Your task to perform on an android device: turn off smart reply in the gmail app Image 0: 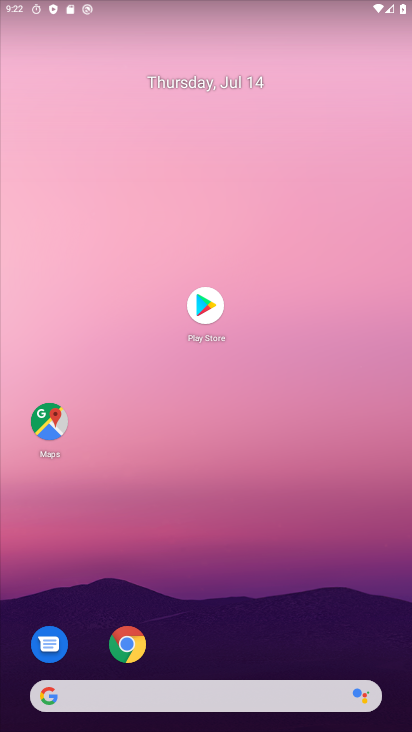
Step 0: drag from (226, 637) to (311, 173)
Your task to perform on an android device: turn off smart reply in the gmail app Image 1: 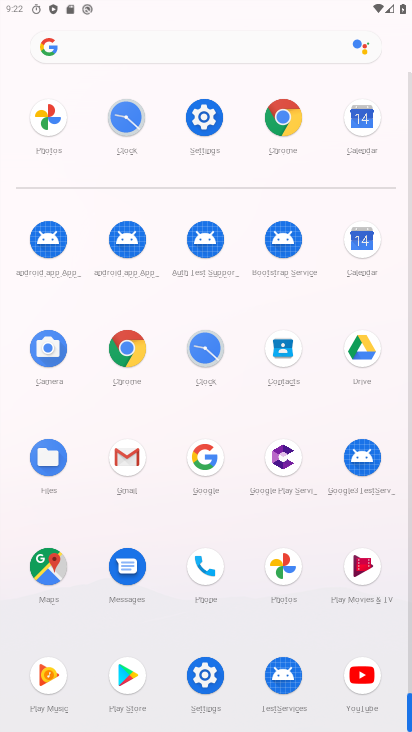
Step 1: click (141, 443)
Your task to perform on an android device: turn off smart reply in the gmail app Image 2: 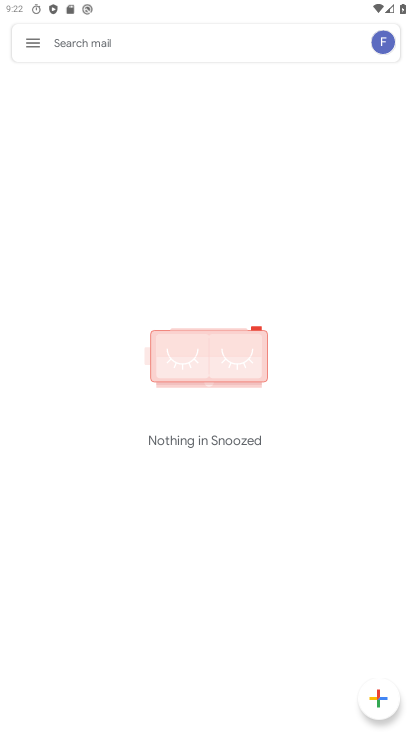
Step 2: click (33, 45)
Your task to perform on an android device: turn off smart reply in the gmail app Image 3: 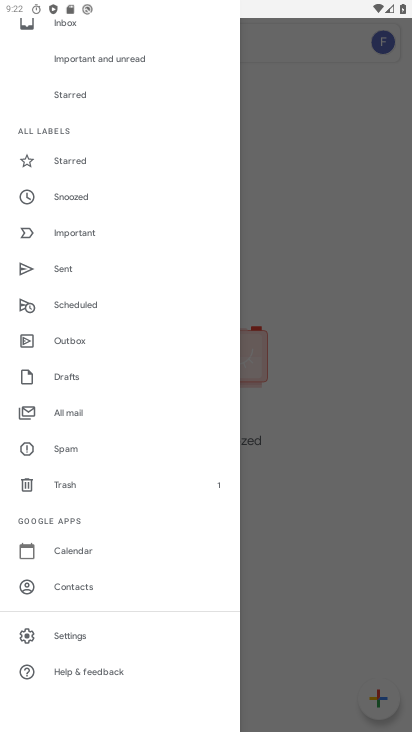
Step 3: click (55, 631)
Your task to perform on an android device: turn off smart reply in the gmail app Image 4: 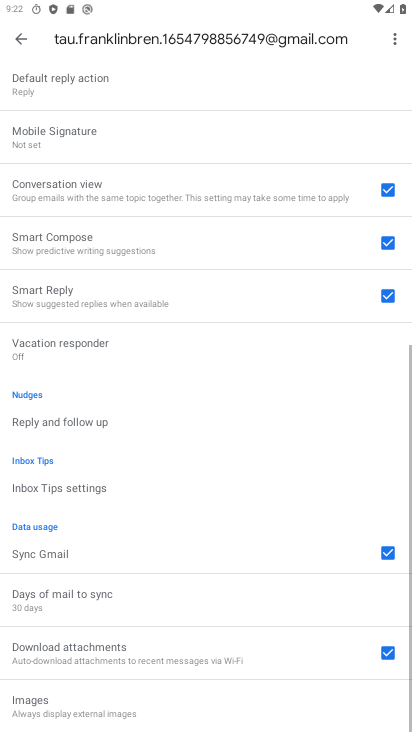
Step 4: drag from (239, 600) to (273, 176)
Your task to perform on an android device: turn off smart reply in the gmail app Image 5: 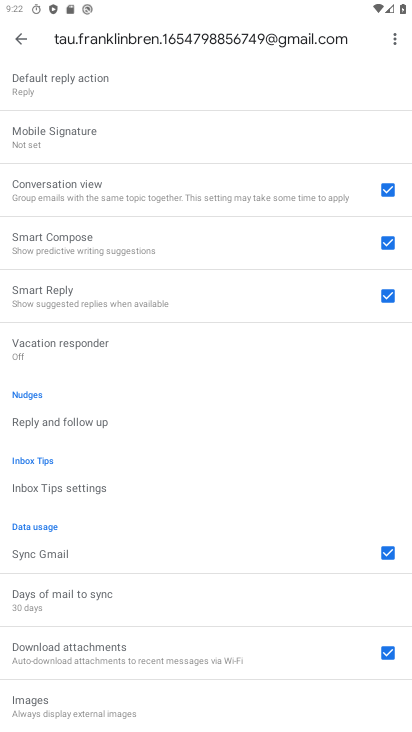
Step 5: drag from (86, 587) to (172, 328)
Your task to perform on an android device: turn off smart reply in the gmail app Image 6: 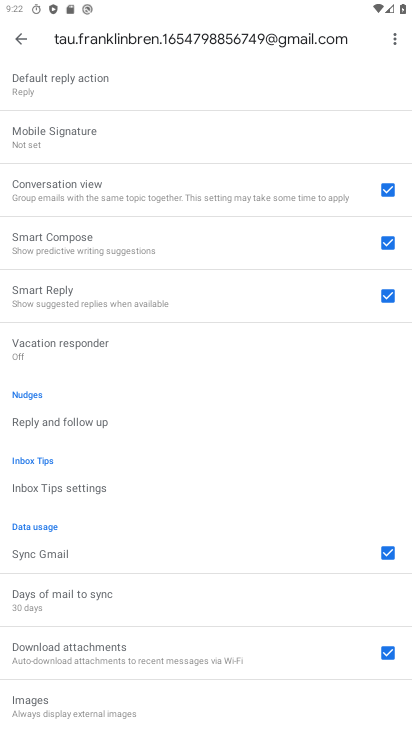
Step 6: click (169, 296)
Your task to perform on an android device: turn off smart reply in the gmail app Image 7: 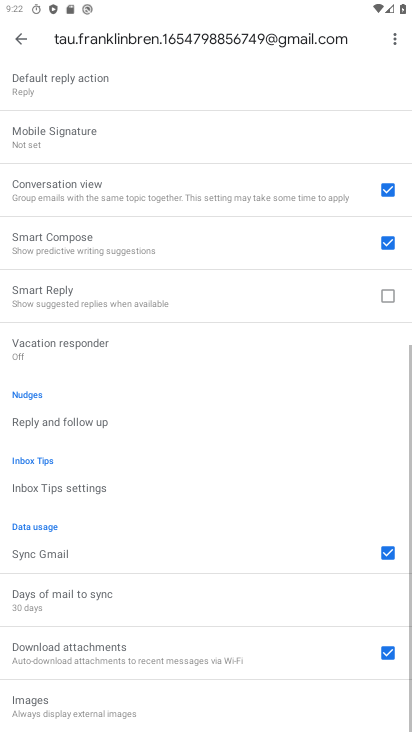
Step 7: task complete